Your task to perform on an android device: delete the emails in spam in the gmail app Image 0: 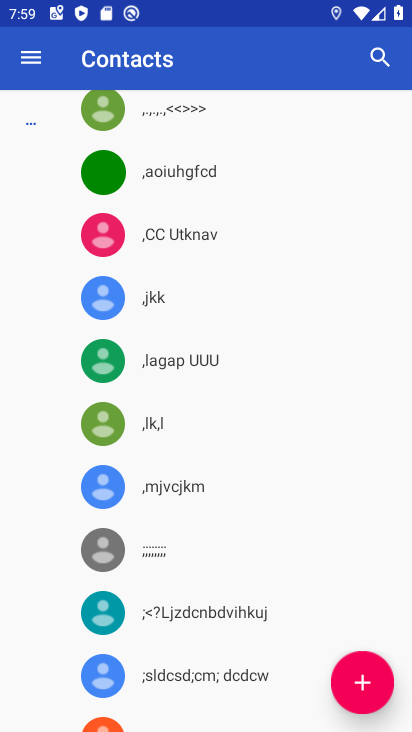
Step 0: press home button
Your task to perform on an android device: delete the emails in spam in the gmail app Image 1: 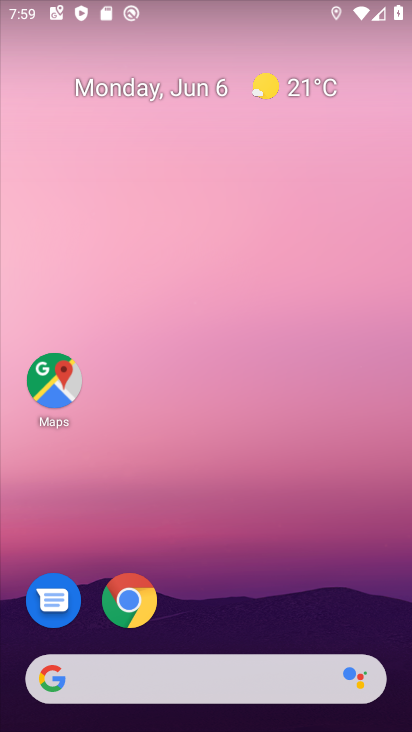
Step 1: drag from (377, 621) to (372, 120)
Your task to perform on an android device: delete the emails in spam in the gmail app Image 2: 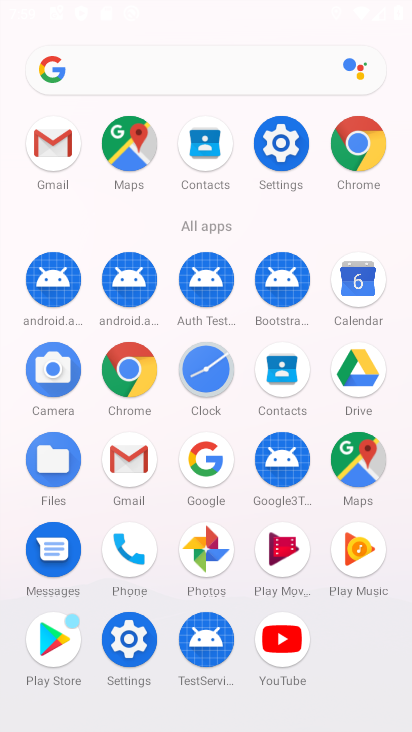
Step 2: click (125, 455)
Your task to perform on an android device: delete the emails in spam in the gmail app Image 3: 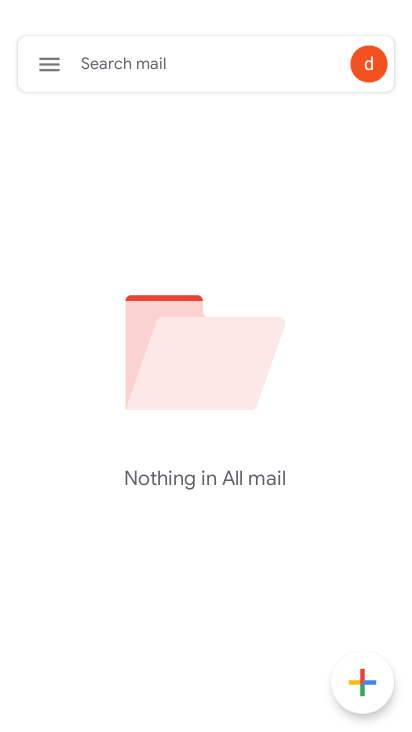
Step 3: click (47, 62)
Your task to perform on an android device: delete the emails in spam in the gmail app Image 4: 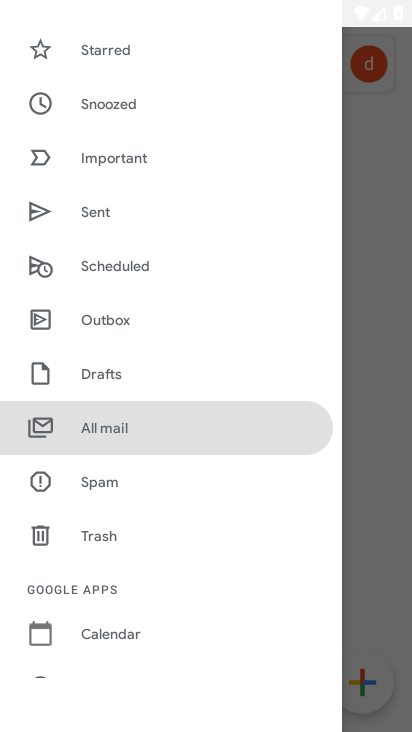
Step 4: click (99, 476)
Your task to perform on an android device: delete the emails in spam in the gmail app Image 5: 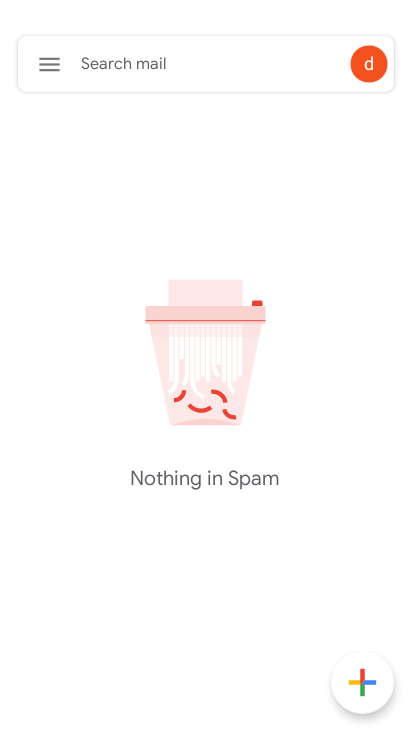
Step 5: task complete